Your task to perform on an android device: toggle location history Image 0: 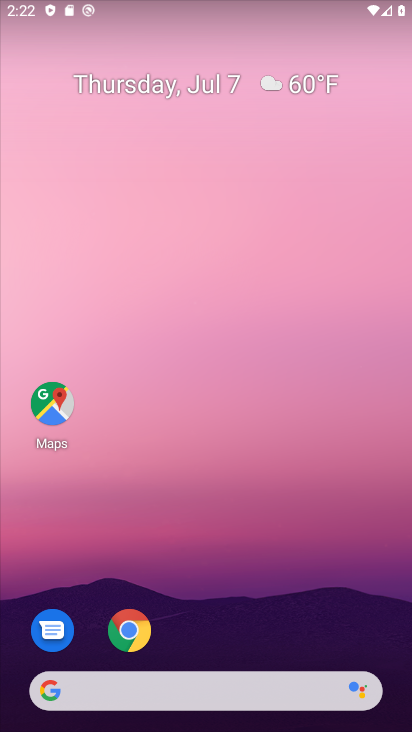
Step 0: drag from (259, 710) to (133, 128)
Your task to perform on an android device: toggle location history Image 1: 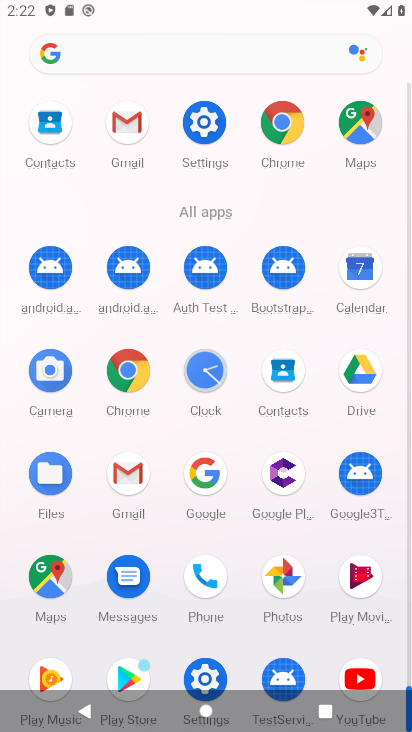
Step 1: click (294, 107)
Your task to perform on an android device: toggle location history Image 2: 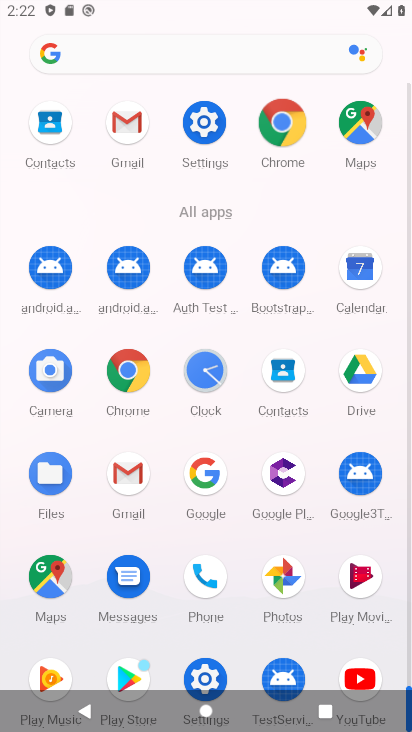
Step 2: click (284, 114)
Your task to perform on an android device: toggle location history Image 3: 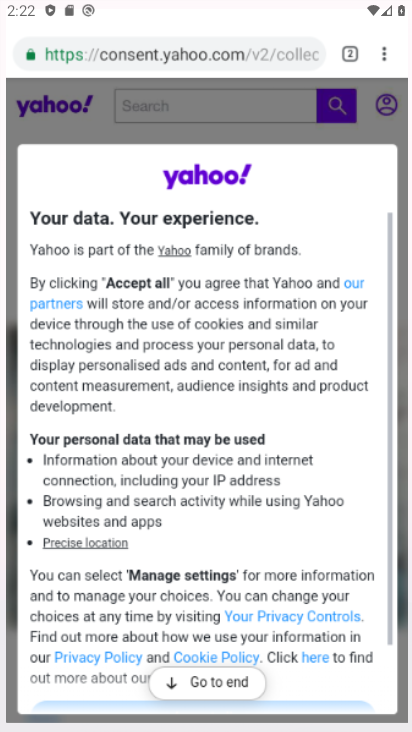
Step 3: click (283, 115)
Your task to perform on an android device: toggle location history Image 4: 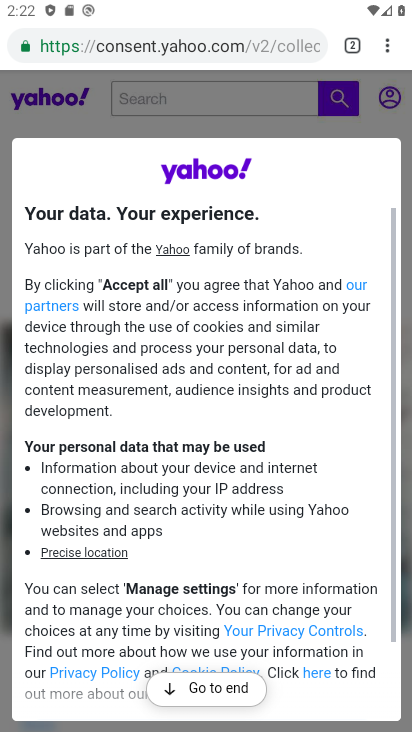
Step 4: drag from (380, 48) to (205, 147)
Your task to perform on an android device: toggle location history Image 5: 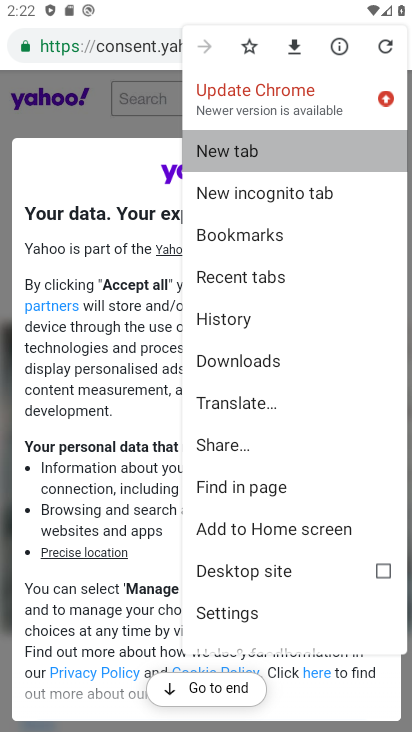
Step 5: click (205, 147)
Your task to perform on an android device: toggle location history Image 6: 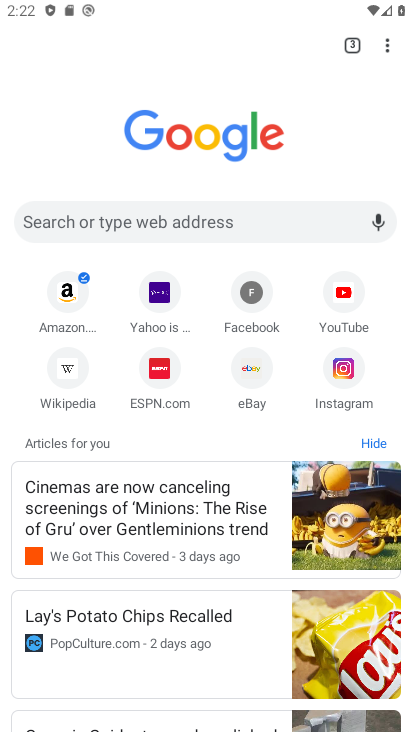
Step 6: press back button
Your task to perform on an android device: toggle location history Image 7: 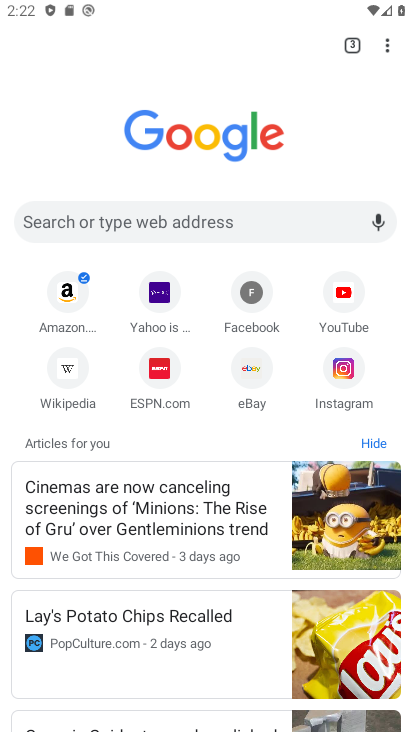
Step 7: press back button
Your task to perform on an android device: toggle location history Image 8: 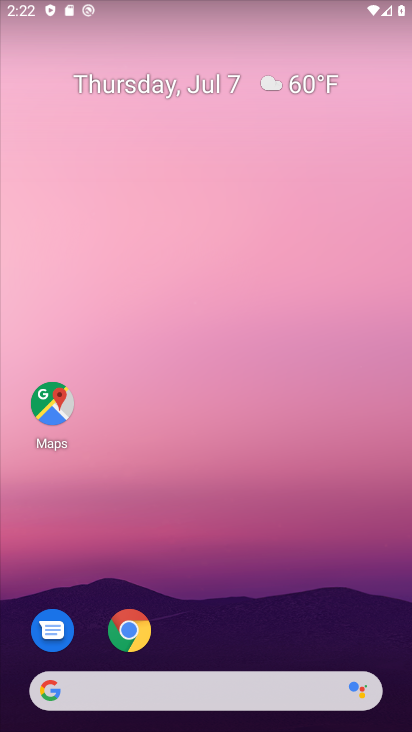
Step 8: drag from (250, 664) to (115, 68)
Your task to perform on an android device: toggle location history Image 9: 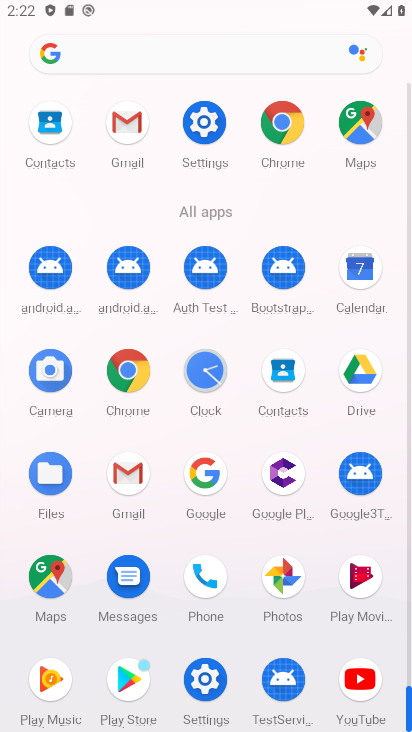
Step 9: click (209, 131)
Your task to perform on an android device: toggle location history Image 10: 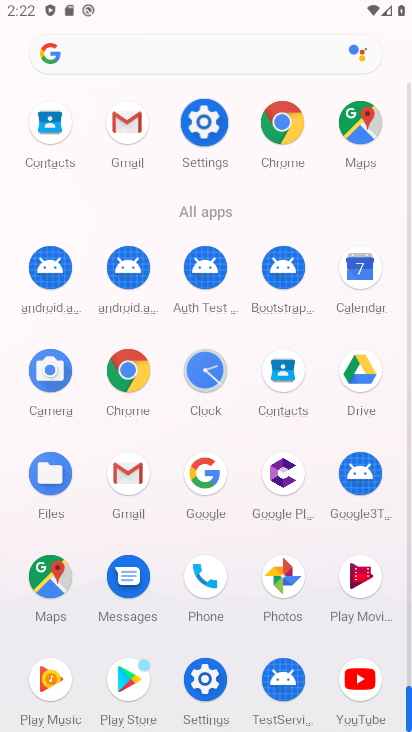
Step 10: click (209, 130)
Your task to perform on an android device: toggle location history Image 11: 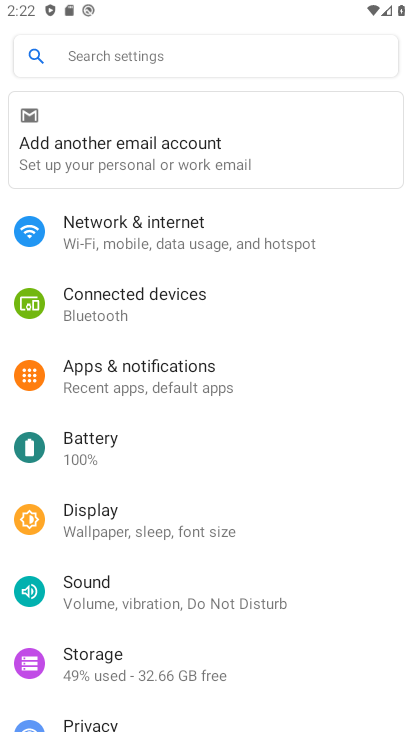
Step 11: drag from (193, 621) to (207, 226)
Your task to perform on an android device: toggle location history Image 12: 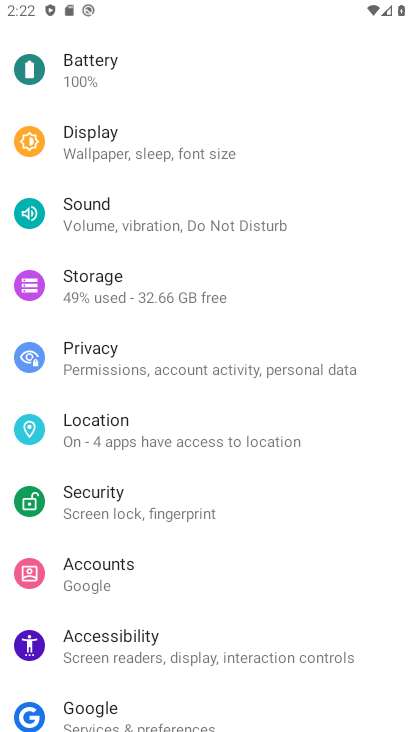
Step 12: click (110, 435)
Your task to perform on an android device: toggle location history Image 13: 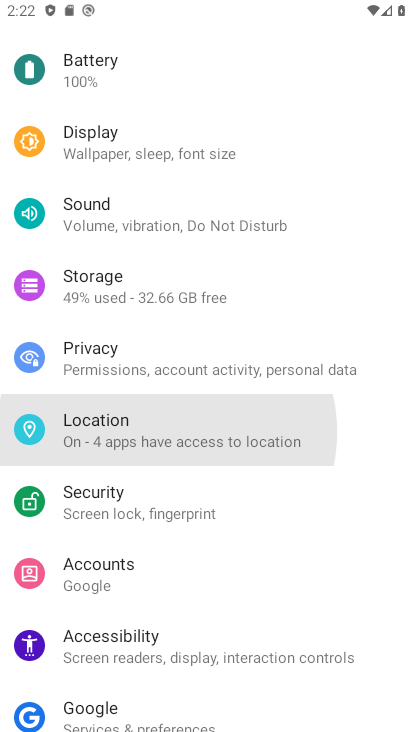
Step 13: click (110, 435)
Your task to perform on an android device: toggle location history Image 14: 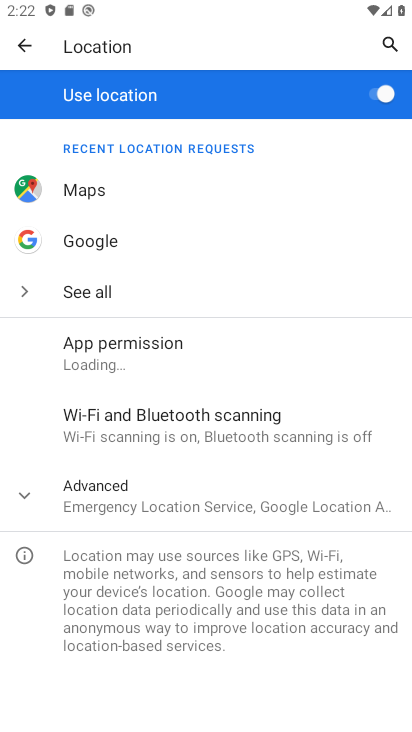
Step 14: click (136, 496)
Your task to perform on an android device: toggle location history Image 15: 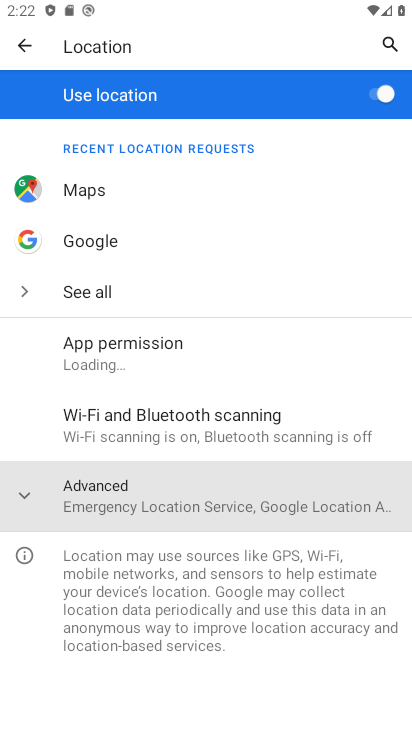
Step 15: click (135, 505)
Your task to perform on an android device: toggle location history Image 16: 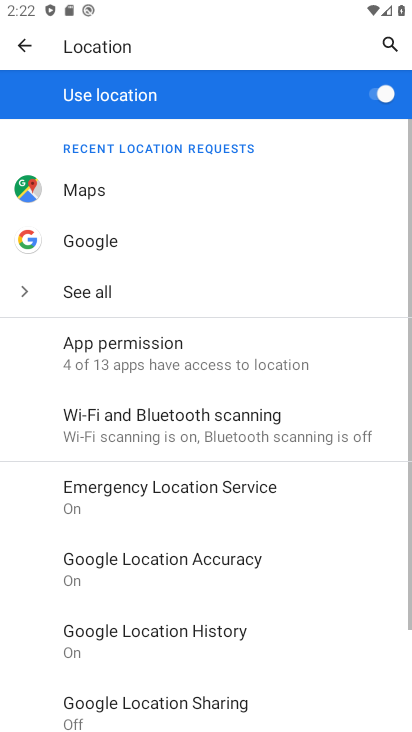
Step 16: click (192, 620)
Your task to perform on an android device: toggle location history Image 17: 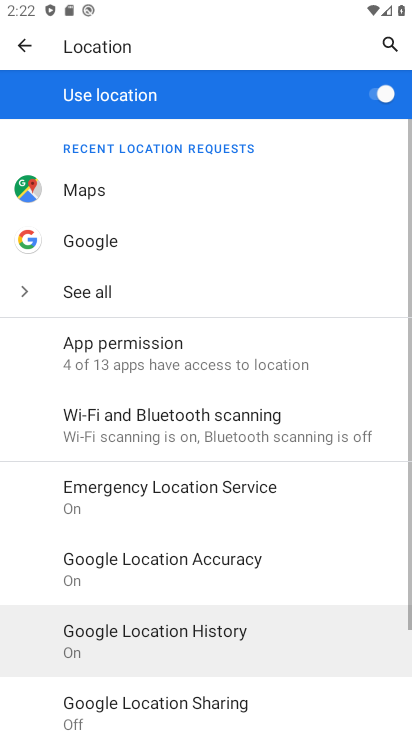
Step 17: click (192, 620)
Your task to perform on an android device: toggle location history Image 18: 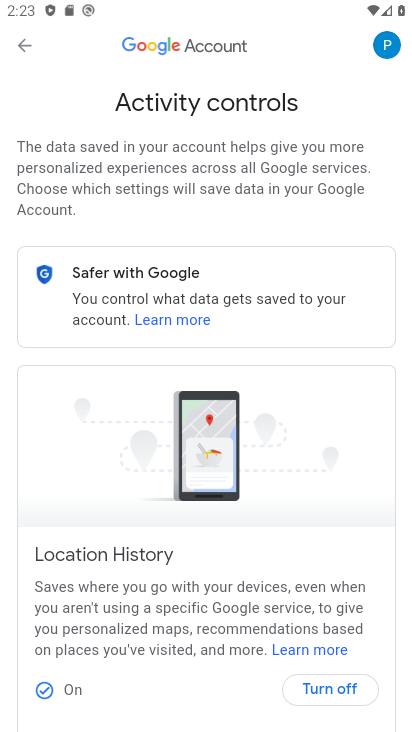
Step 18: click (330, 662)
Your task to perform on an android device: toggle location history Image 19: 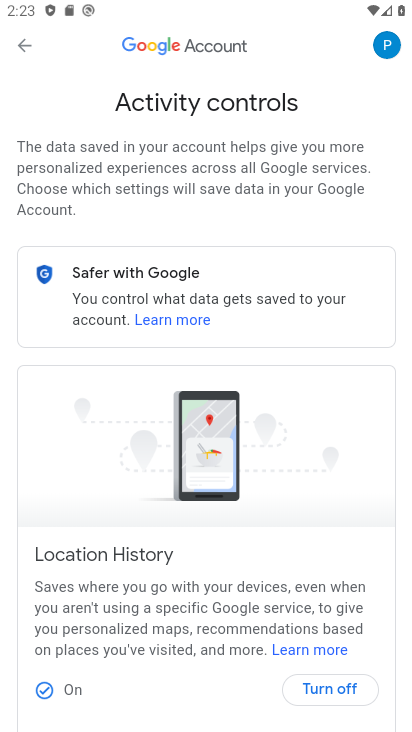
Step 19: click (340, 707)
Your task to perform on an android device: toggle location history Image 20: 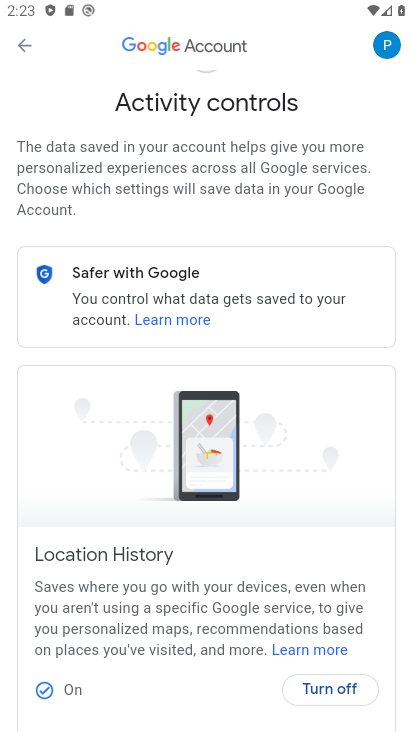
Step 20: click (334, 704)
Your task to perform on an android device: toggle location history Image 21: 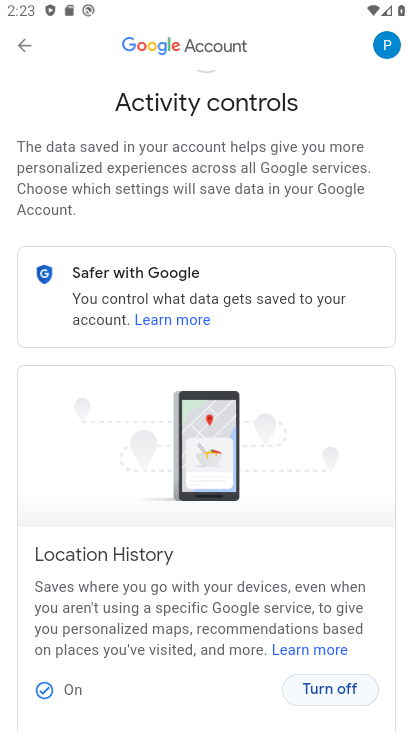
Step 21: click (333, 703)
Your task to perform on an android device: toggle location history Image 22: 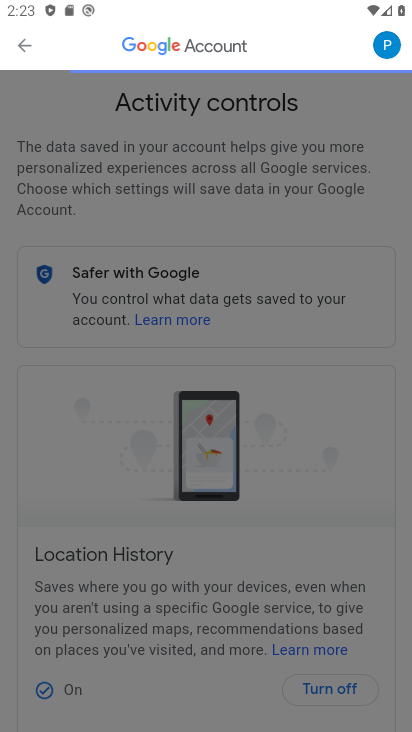
Step 22: click (339, 695)
Your task to perform on an android device: toggle location history Image 23: 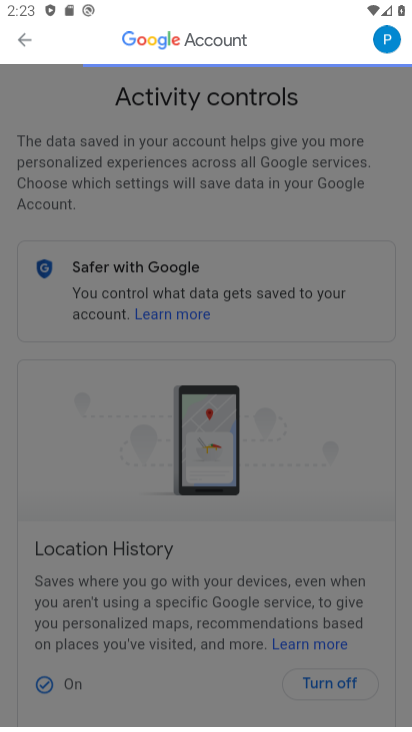
Step 23: click (350, 667)
Your task to perform on an android device: toggle location history Image 24: 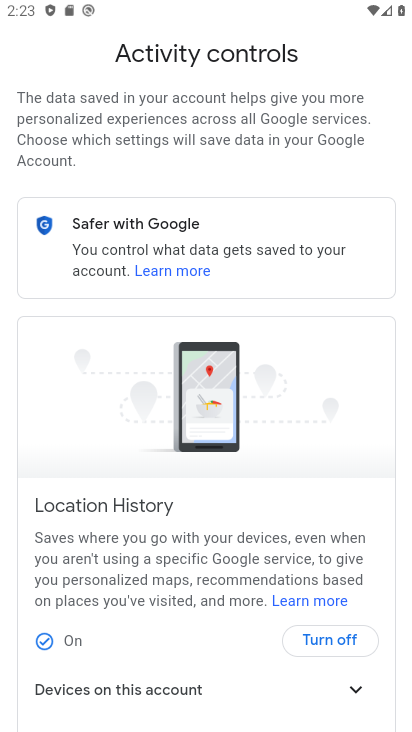
Step 24: click (346, 678)
Your task to perform on an android device: toggle location history Image 25: 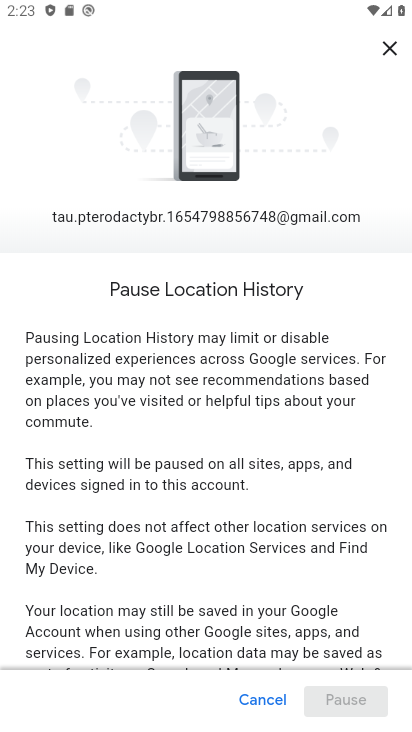
Step 25: task complete